Your task to perform on an android device: toggle show notifications on the lock screen Image 0: 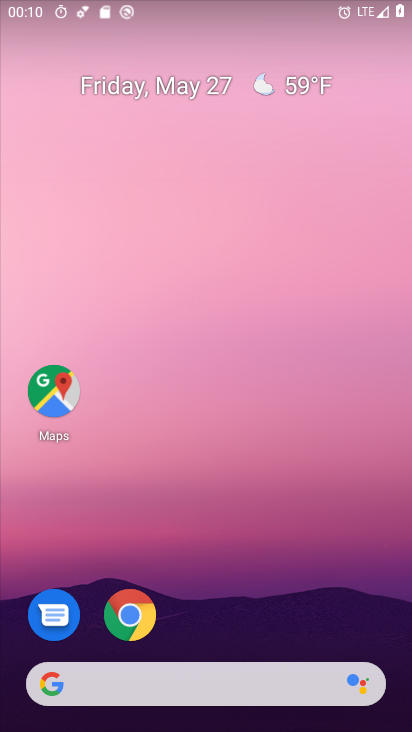
Step 0: drag from (304, 707) to (215, 25)
Your task to perform on an android device: toggle show notifications on the lock screen Image 1: 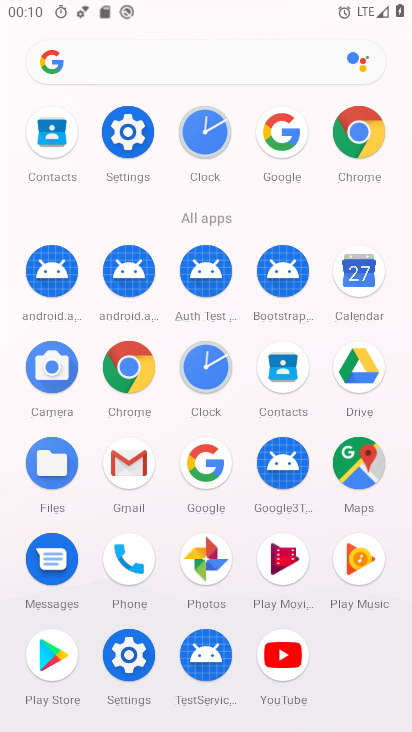
Step 1: click (126, 123)
Your task to perform on an android device: toggle show notifications on the lock screen Image 2: 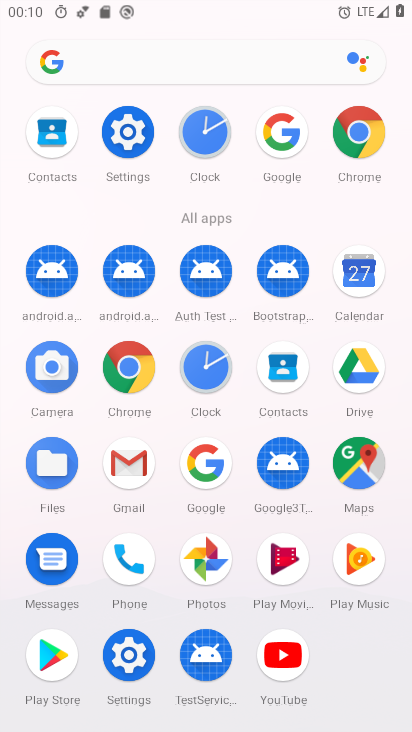
Step 2: click (125, 124)
Your task to perform on an android device: toggle show notifications on the lock screen Image 3: 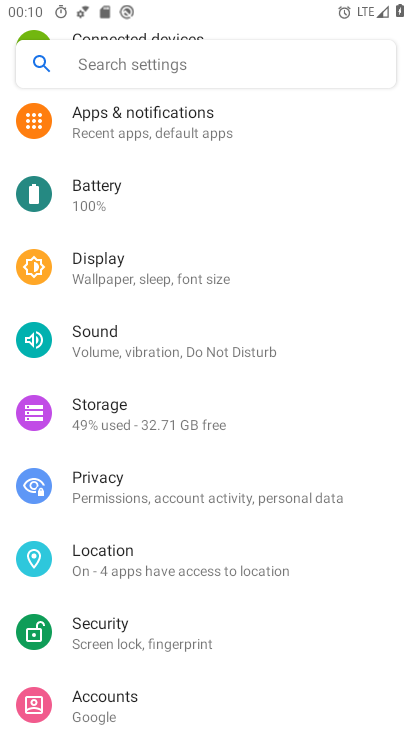
Step 3: drag from (155, 568) to (130, 202)
Your task to perform on an android device: toggle show notifications on the lock screen Image 4: 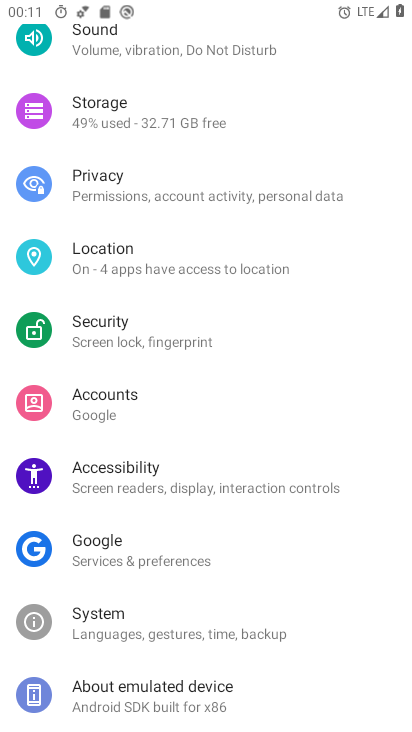
Step 4: drag from (112, 640) to (133, 126)
Your task to perform on an android device: toggle show notifications on the lock screen Image 5: 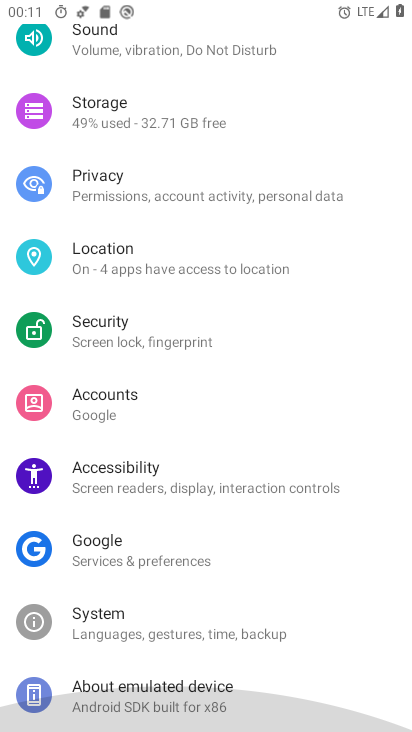
Step 5: drag from (130, 445) to (124, 195)
Your task to perform on an android device: toggle show notifications on the lock screen Image 6: 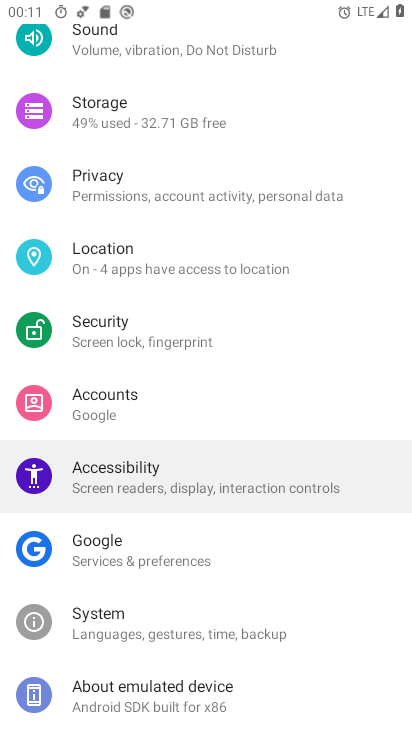
Step 6: drag from (123, 181) to (189, 545)
Your task to perform on an android device: toggle show notifications on the lock screen Image 7: 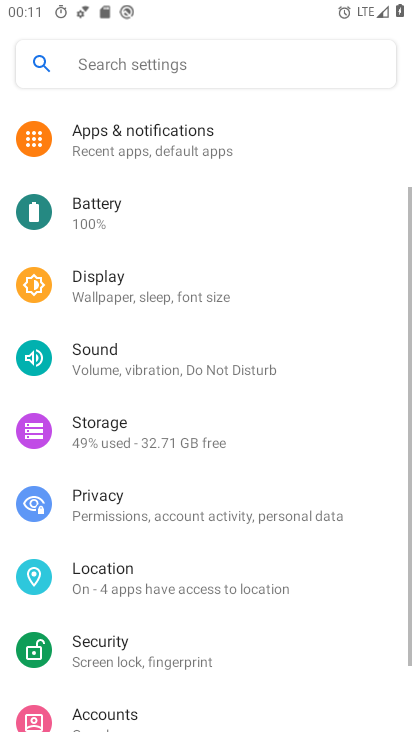
Step 7: drag from (139, 225) to (172, 564)
Your task to perform on an android device: toggle show notifications on the lock screen Image 8: 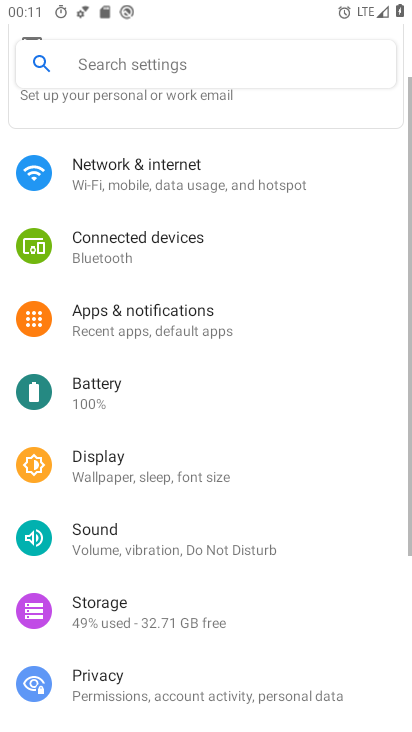
Step 8: drag from (132, 332) to (182, 584)
Your task to perform on an android device: toggle show notifications on the lock screen Image 9: 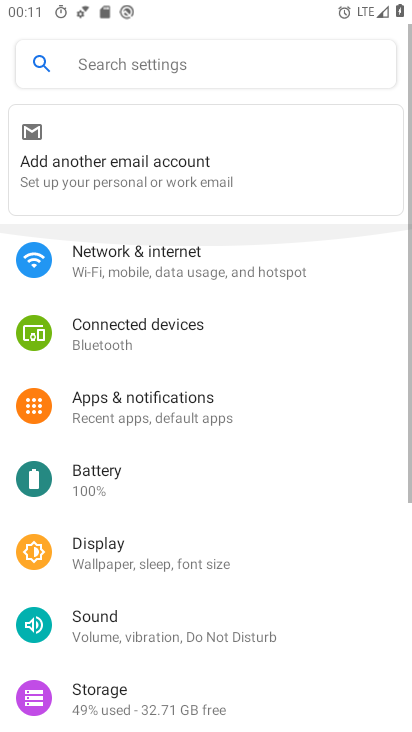
Step 9: drag from (160, 257) to (232, 559)
Your task to perform on an android device: toggle show notifications on the lock screen Image 10: 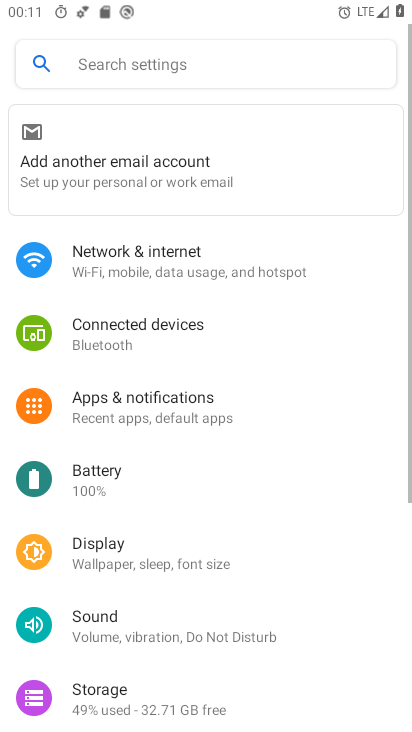
Step 10: drag from (135, 240) to (198, 571)
Your task to perform on an android device: toggle show notifications on the lock screen Image 11: 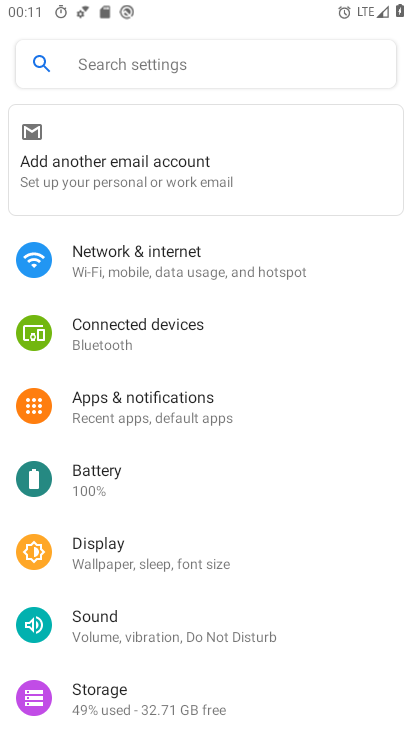
Step 11: drag from (143, 228) to (206, 682)
Your task to perform on an android device: toggle show notifications on the lock screen Image 12: 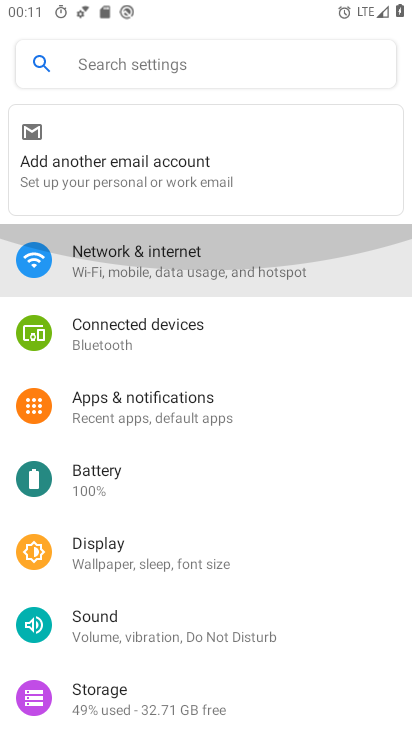
Step 12: drag from (157, 258) to (189, 625)
Your task to perform on an android device: toggle show notifications on the lock screen Image 13: 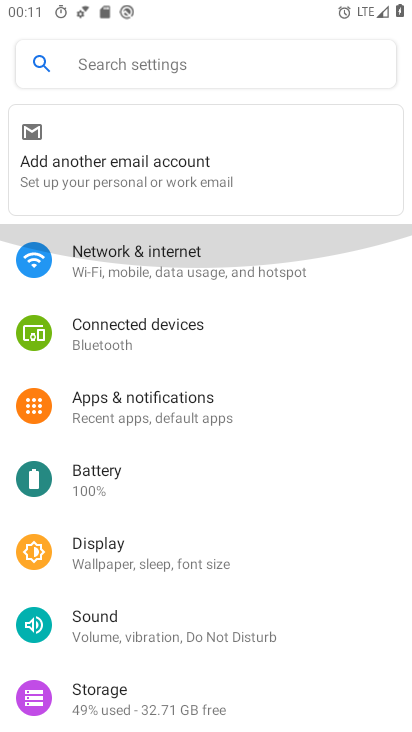
Step 13: drag from (159, 228) to (223, 619)
Your task to perform on an android device: toggle show notifications on the lock screen Image 14: 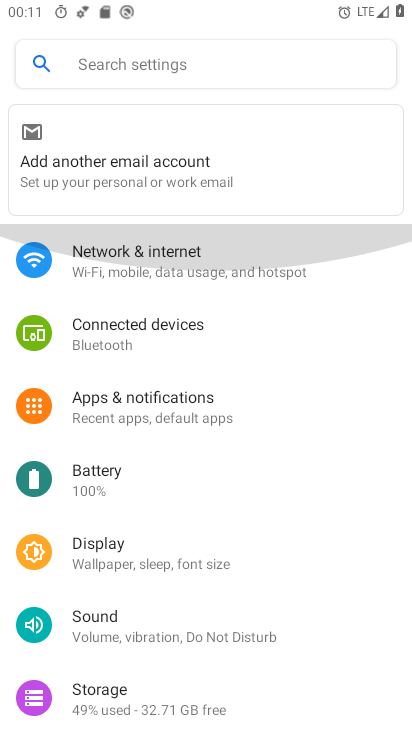
Step 14: drag from (157, 229) to (191, 692)
Your task to perform on an android device: toggle show notifications on the lock screen Image 15: 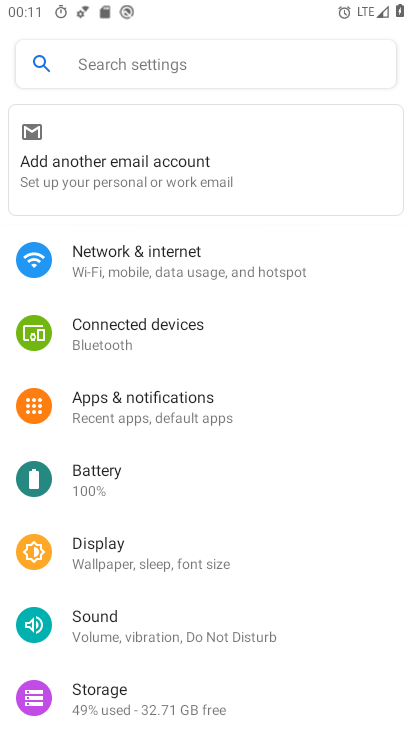
Step 15: click (154, 369)
Your task to perform on an android device: toggle show notifications on the lock screen Image 16: 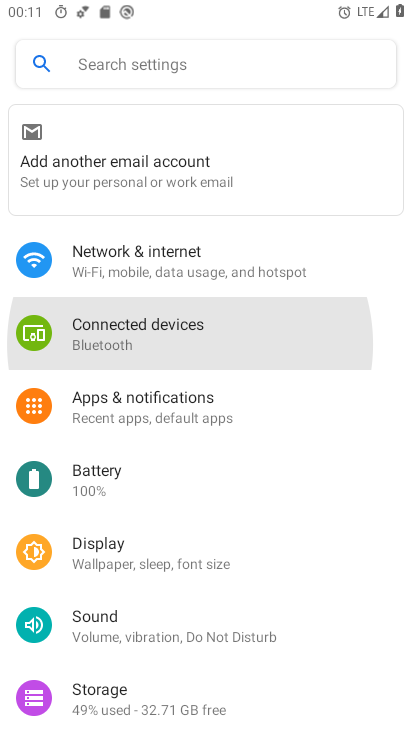
Step 16: click (156, 406)
Your task to perform on an android device: toggle show notifications on the lock screen Image 17: 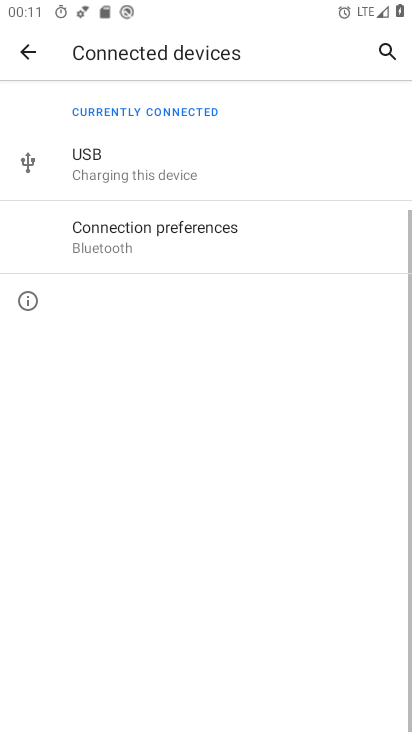
Step 17: click (156, 406)
Your task to perform on an android device: toggle show notifications on the lock screen Image 18: 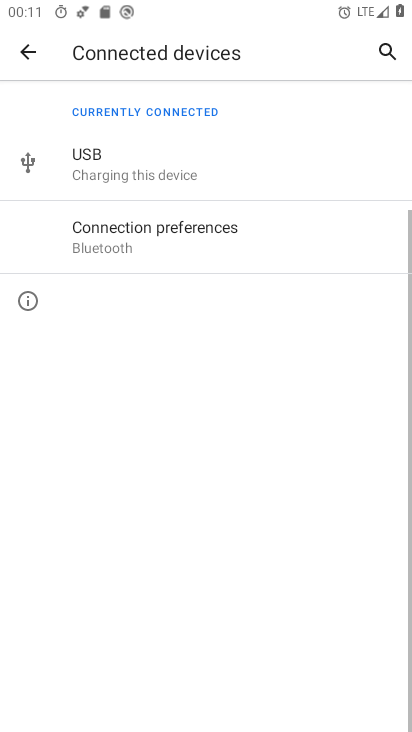
Step 18: click (156, 407)
Your task to perform on an android device: toggle show notifications on the lock screen Image 19: 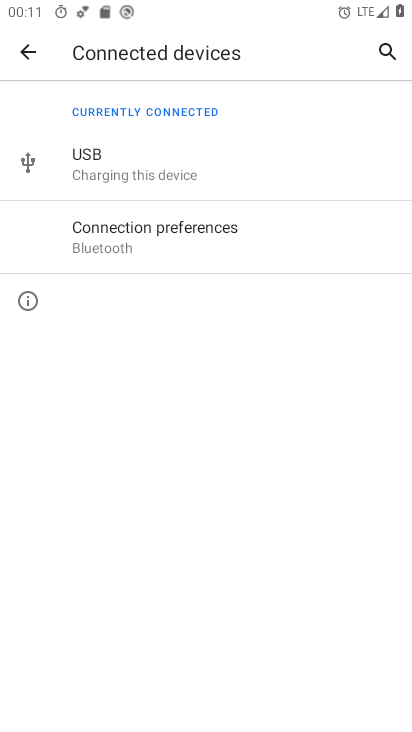
Step 19: click (25, 53)
Your task to perform on an android device: toggle show notifications on the lock screen Image 20: 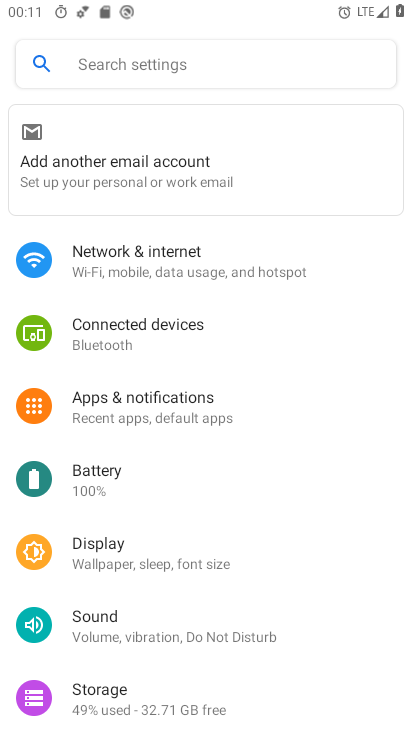
Step 20: click (127, 399)
Your task to perform on an android device: toggle show notifications on the lock screen Image 21: 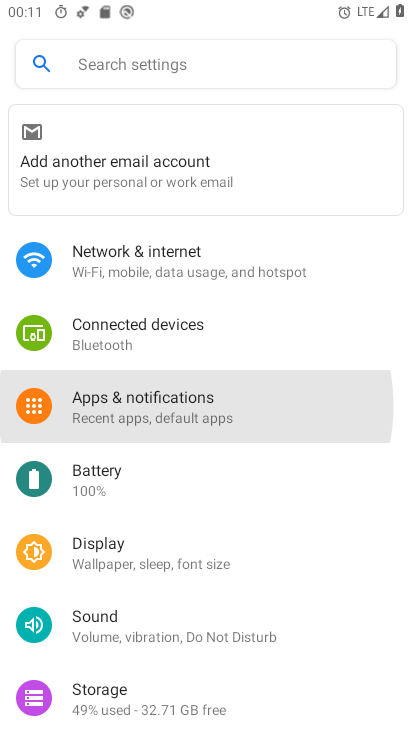
Step 21: click (128, 399)
Your task to perform on an android device: toggle show notifications on the lock screen Image 22: 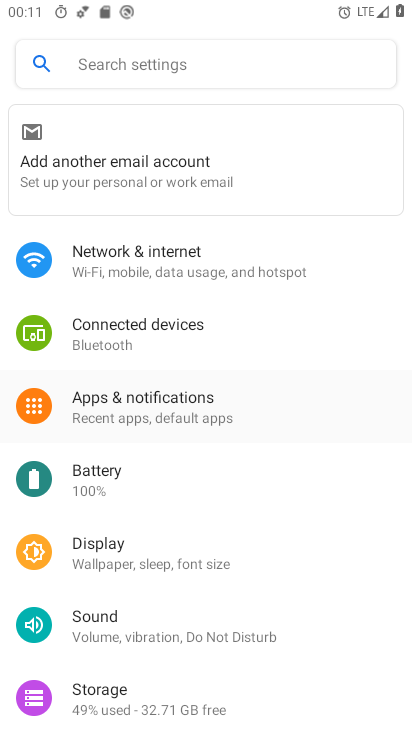
Step 22: click (128, 399)
Your task to perform on an android device: toggle show notifications on the lock screen Image 23: 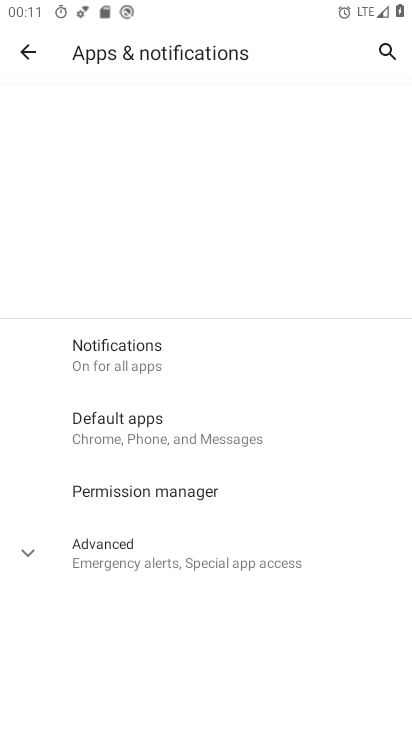
Step 23: click (175, 405)
Your task to perform on an android device: toggle show notifications on the lock screen Image 24: 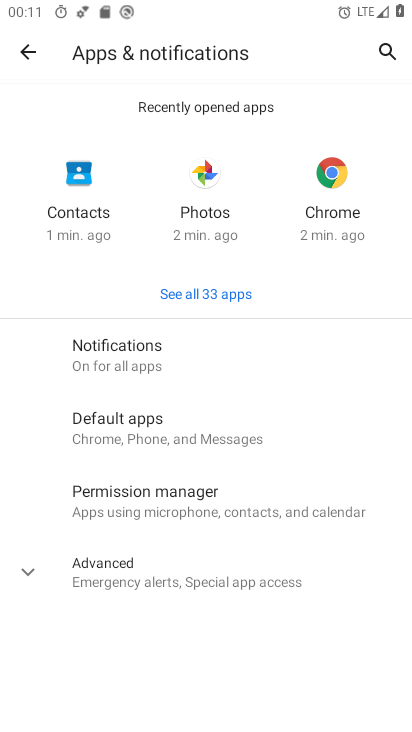
Step 24: click (123, 375)
Your task to perform on an android device: toggle show notifications on the lock screen Image 25: 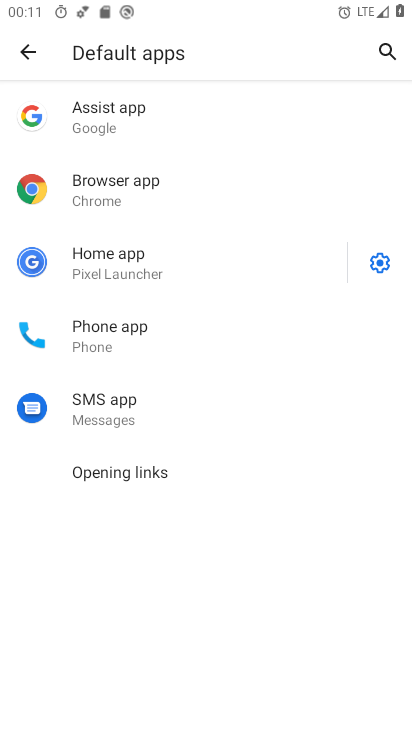
Step 25: click (126, 350)
Your task to perform on an android device: toggle show notifications on the lock screen Image 26: 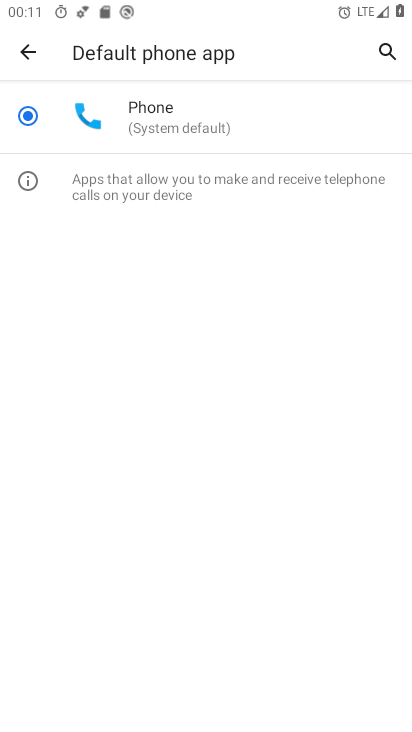
Step 26: click (31, 55)
Your task to perform on an android device: toggle show notifications on the lock screen Image 27: 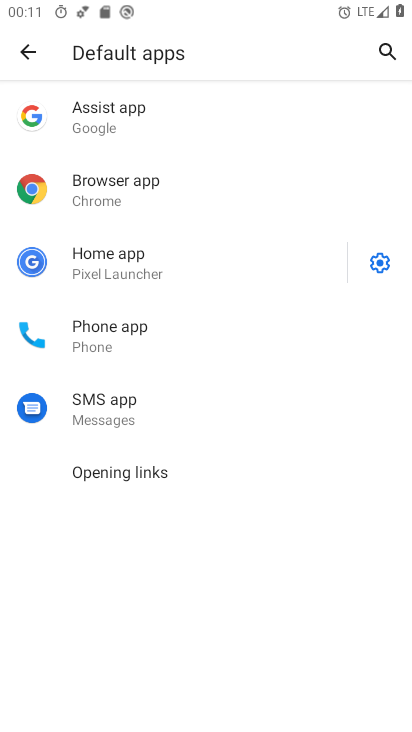
Step 27: click (34, 54)
Your task to perform on an android device: toggle show notifications on the lock screen Image 28: 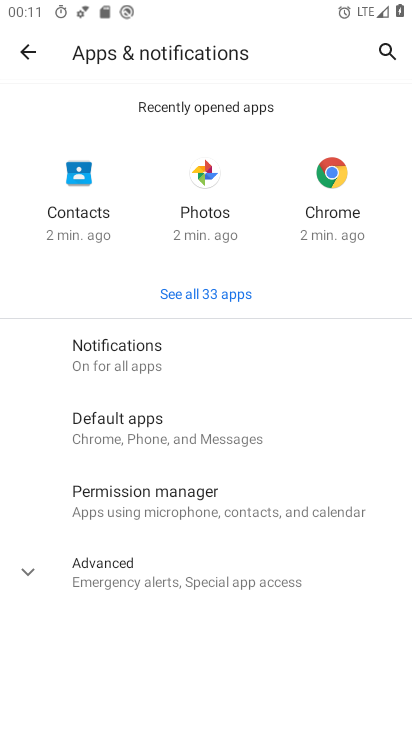
Step 28: click (101, 346)
Your task to perform on an android device: toggle show notifications on the lock screen Image 29: 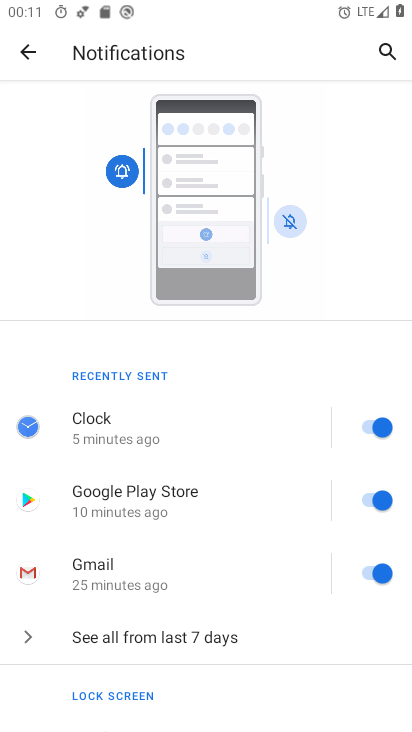
Step 29: drag from (188, 563) to (170, 260)
Your task to perform on an android device: toggle show notifications on the lock screen Image 30: 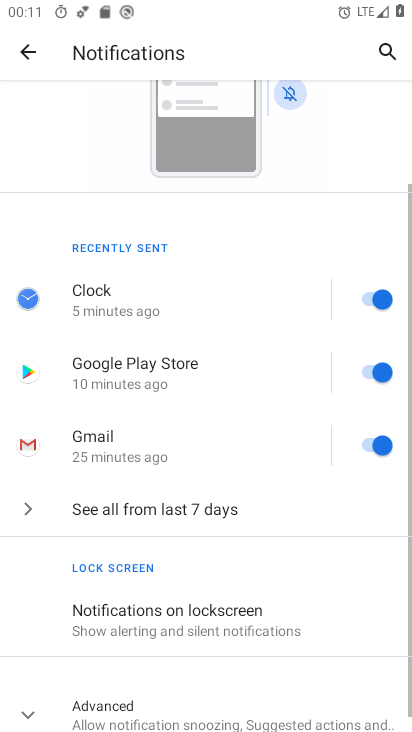
Step 30: drag from (170, 613) to (171, 191)
Your task to perform on an android device: toggle show notifications on the lock screen Image 31: 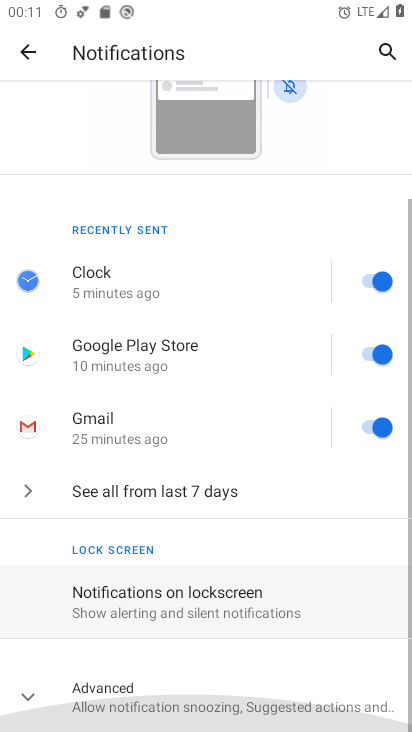
Step 31: drag from (144, 431) to (144, 170)
Your task to perform on an android device: toggle show notifications on the lock screen Image 32: 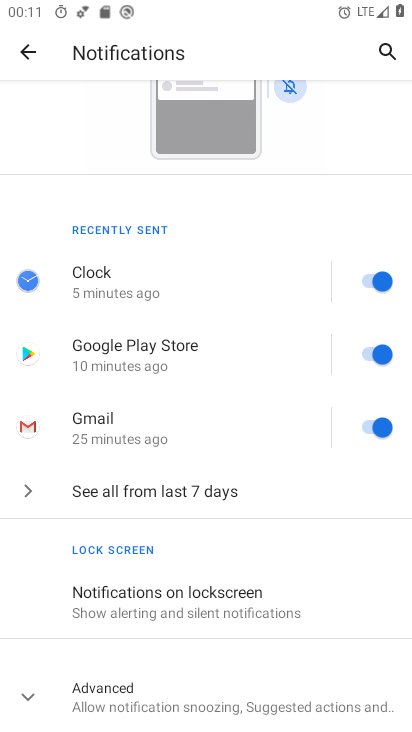
Step 32: click (167, 597)
Your task to perform on an android device: toggle show notifications on the lock screen Image 33: 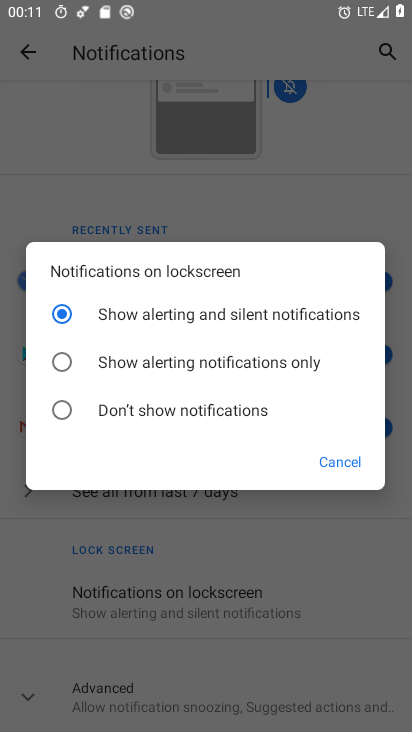
Step 33: click (352, 464)
Your task to perform on an android device: toggle show notifications on the lock screen Image 34: 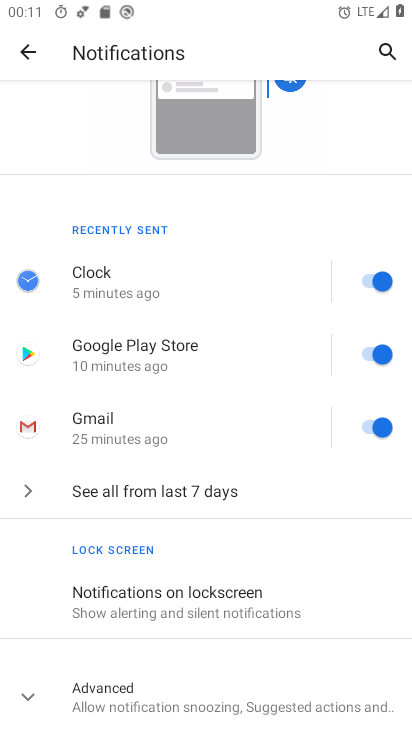
Step 34: task complete